Your task to perform on an android device: check the backup settings in the google photos Image 0: 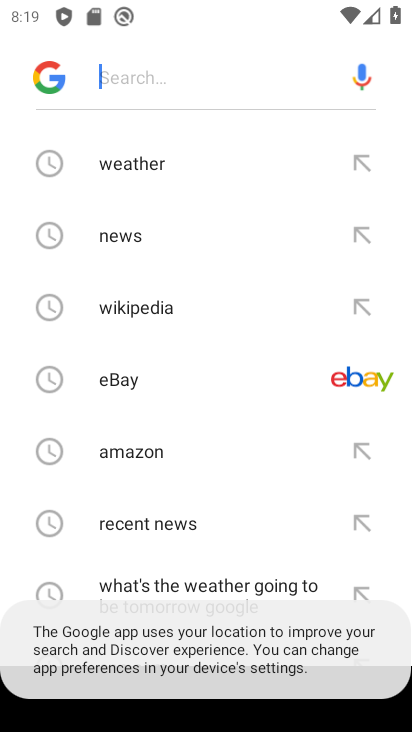
Step 0: press home button
Your task to perform on an android device: check the backup settings in the google photos Image 1: 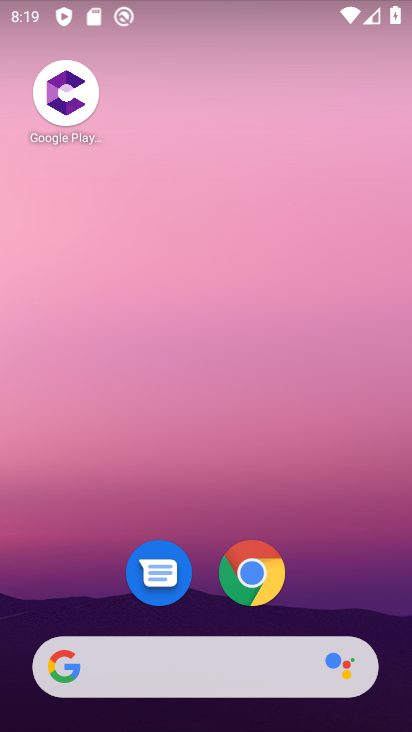
Step 1: drag from (401, 630) to (255, 152)
Your task to perform on an android device: check the backup settings in the google photos Image 2: 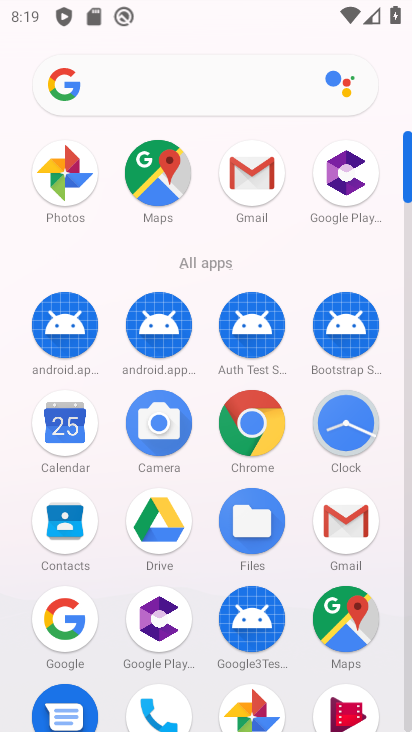
Step 2: click (53, 182)
Your task to perform on an android device: check the backup settings in the google photos Image 3: 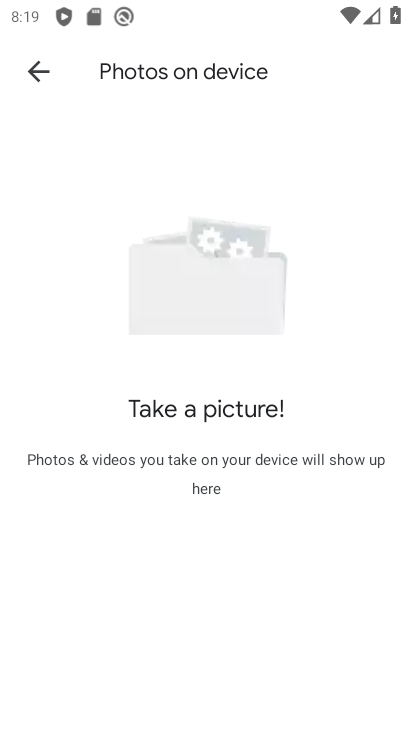
Step 3: click (40, 63)
Your task to perform on an android device: check the backup settings in the google photos Image 4: 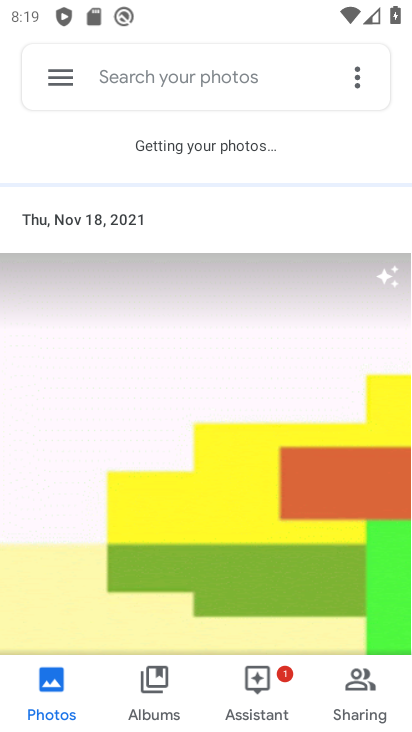
Step 4: click (64, 91)
Your task to perform on an android device: check the backup settings in the google photos Image 5: 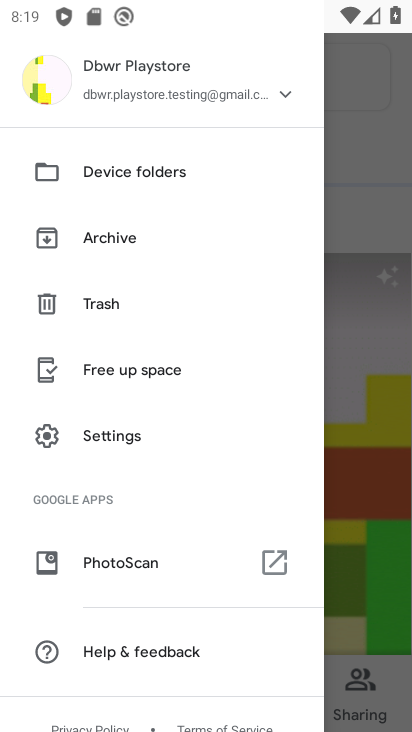
Step 5: click (113, 421)
Your task to perform on an android device: check the backup settings in the google photos Image 6: 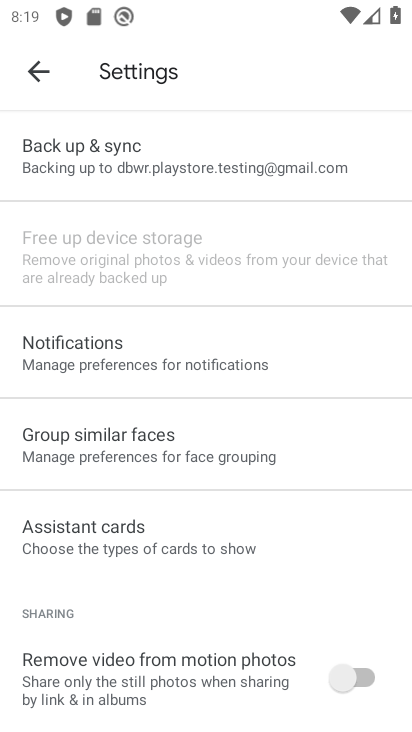
Step 6: click (148, 165)
Your task to perform on an android device: check the backup settings in the google photos Image 7: 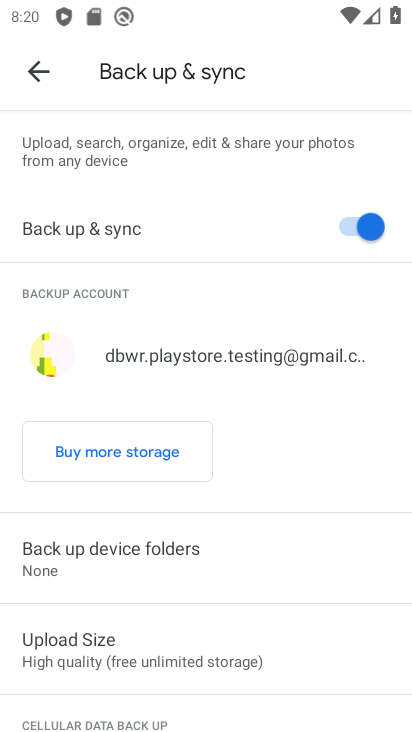
Step 7: click (148, 165)
Your task to perform on an android device: check the backup settings in the google photos Image 8: 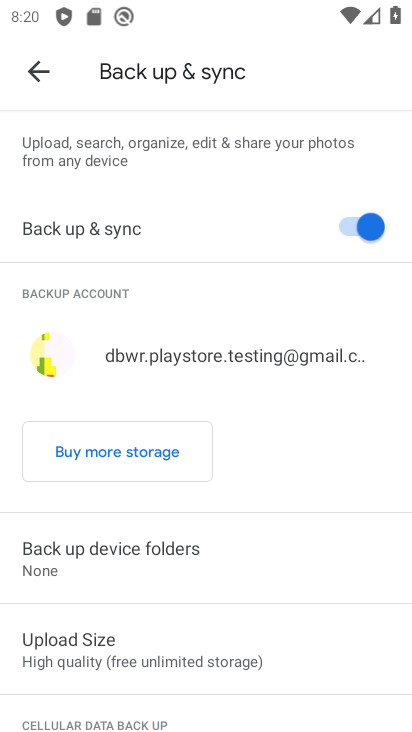
Step 8: task complete